Your task to perform on an android device: Open Maps and search for coffee Image 0: 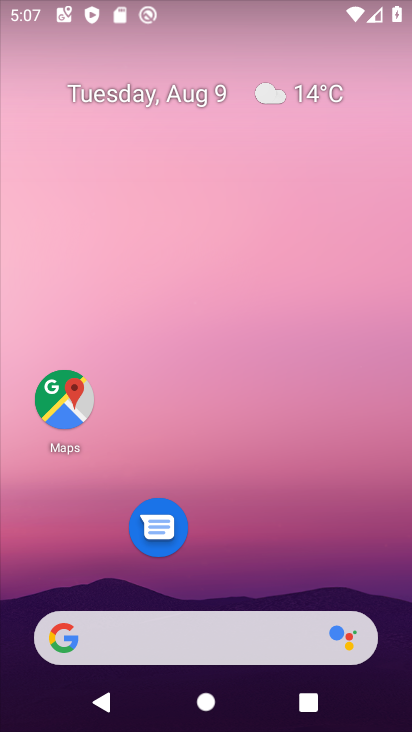
Step 0: click (99, 403)
Your task to perform on an android device: Open Maps and search for coffee Image 1: 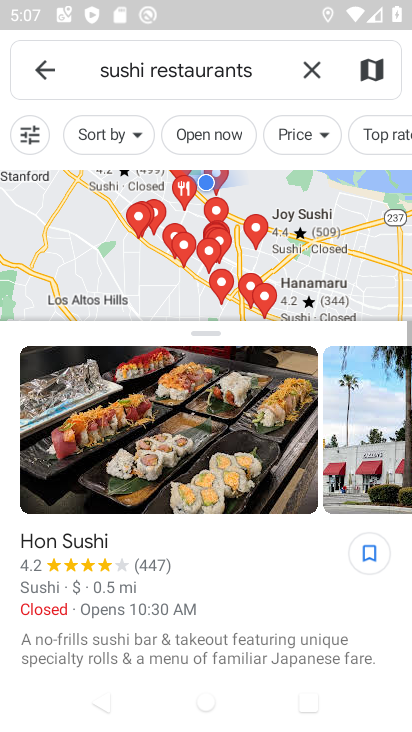
Step 1: click (319, 89)
Your task to perform on an android device: Open Maps and search for coffee Image 2: 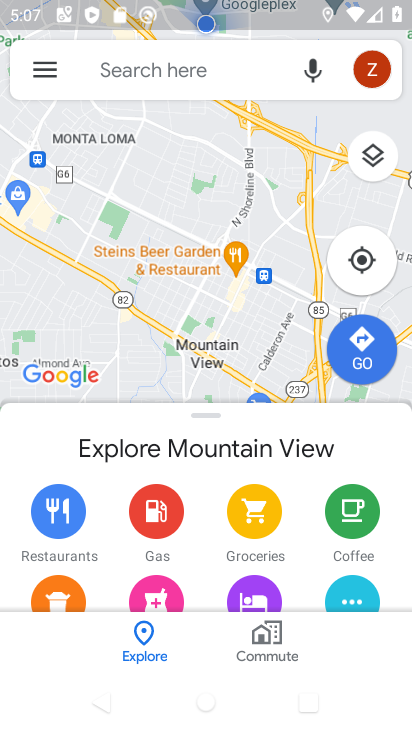
Step 2: click (236, 73)
Your task to perform on an android device: Open Maps and search for coffee Image 3: 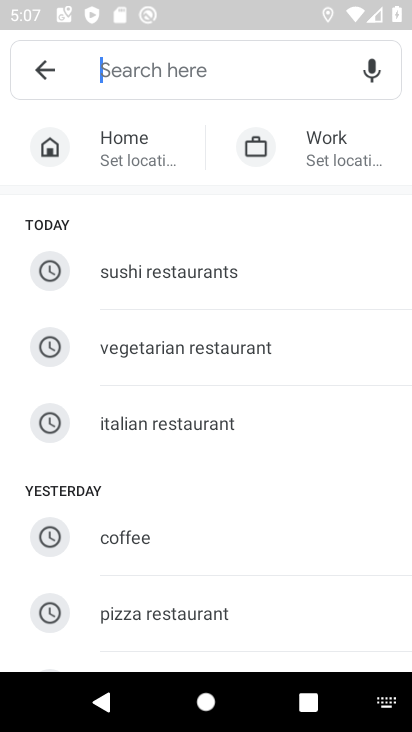
Step 3: click (139, 534)
Your task to perform on an android device: Open Maps and search for coffee Image 4: 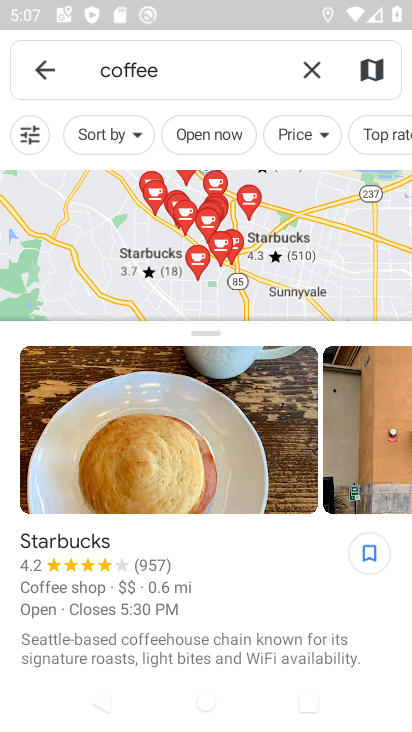
Step 4: task complete